Your task to perform on an android device: open chrome privacy settings Image 0: 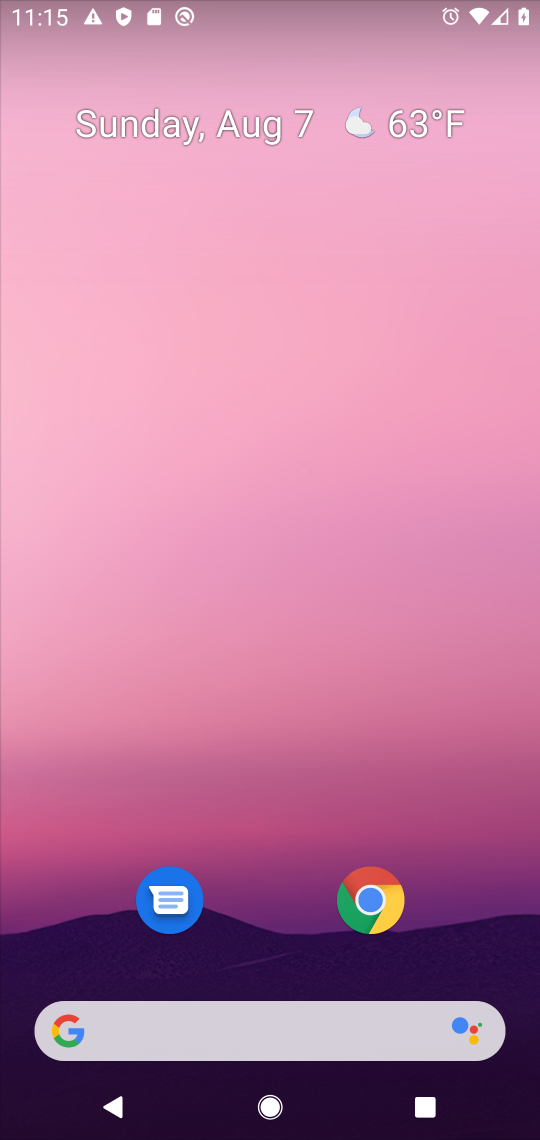
Step 0: press home button
Your task to perform on an android device: open chrome privacy settings Image 1: 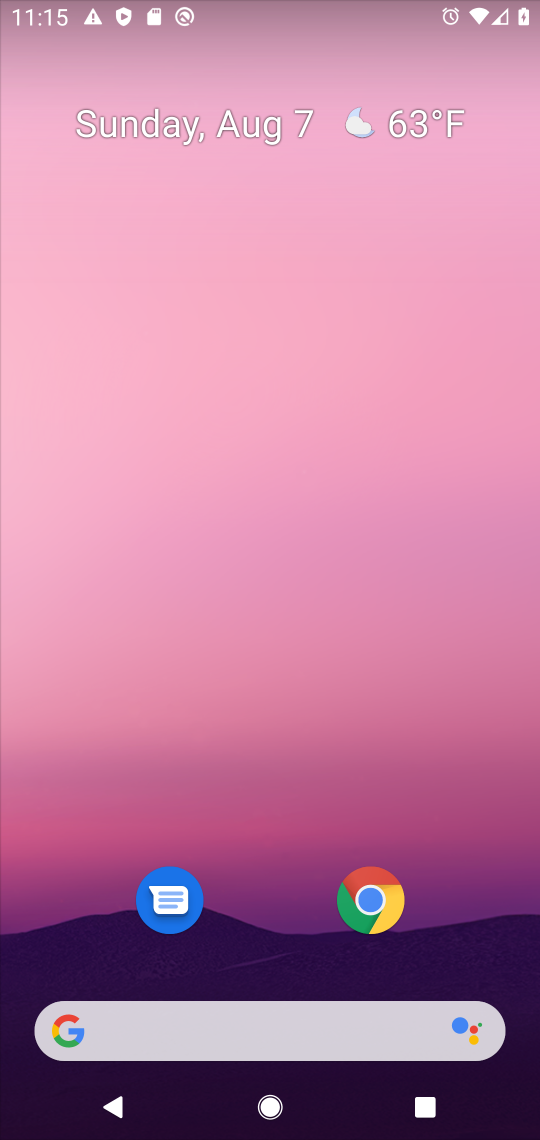
Step 1: drag from (279, 956) to (288, 83)
Your task to perform on an android device: open chrome privacy settings Image 2: 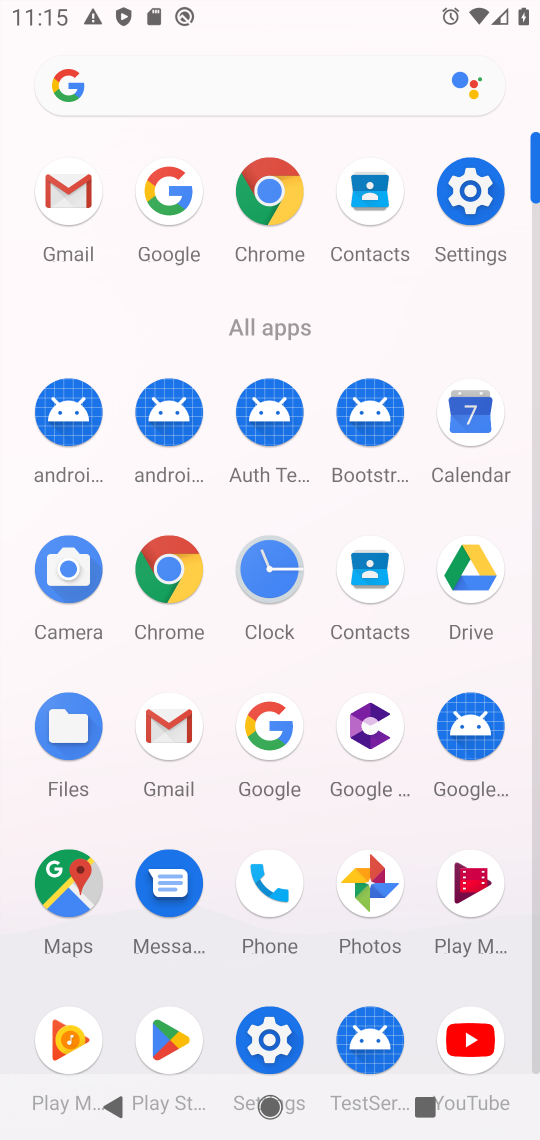
Step 2: click (270, 189)
Your task to perform on an android device: open chrome privacy settings Image 3: 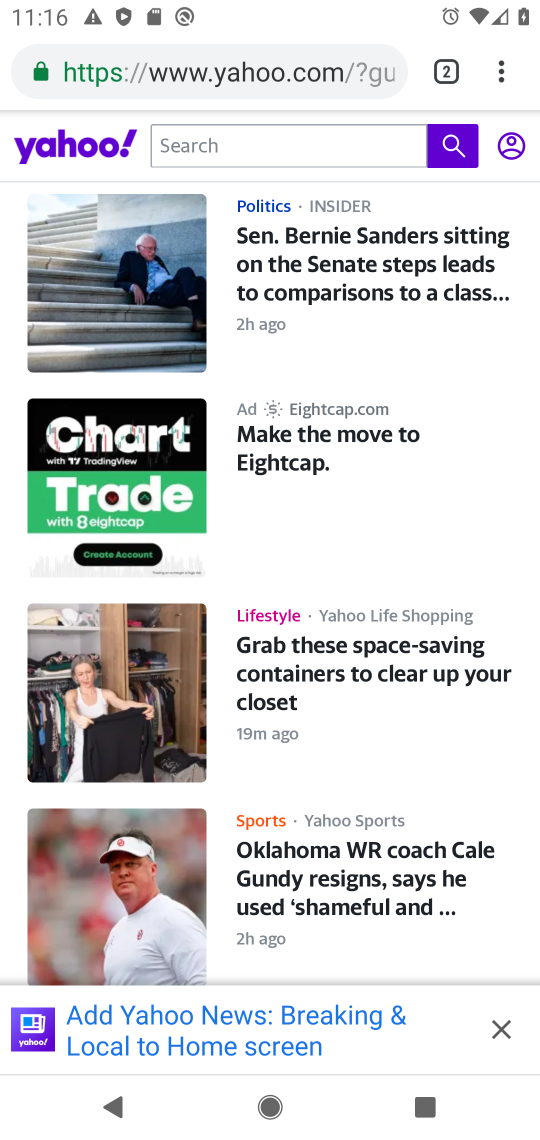
Step 3: click (506, 68)
Your task to perform on an android device: open chrome privacy settings Image 4: 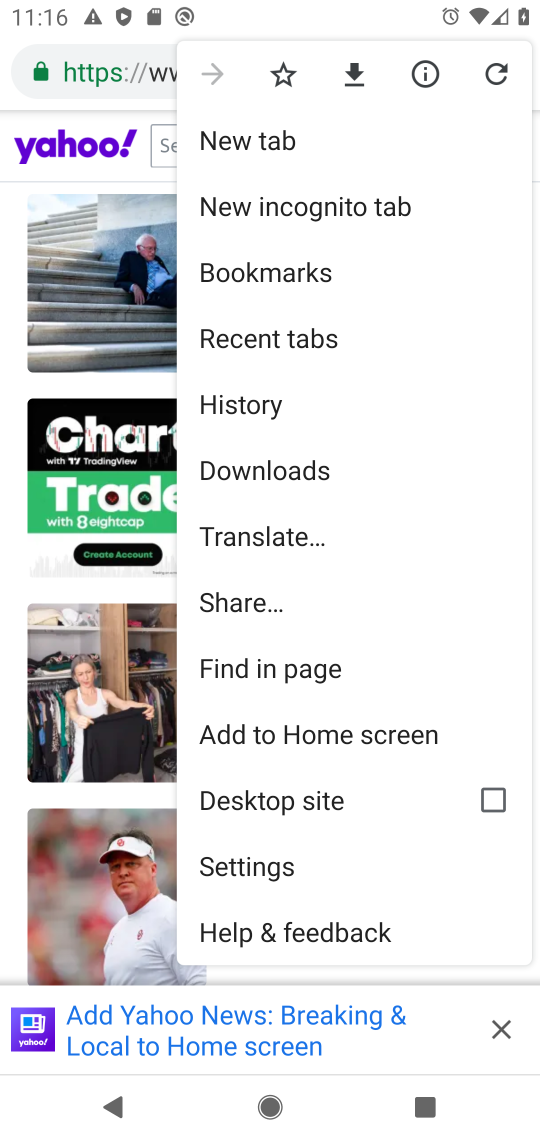
Step 4: click (321, 866)
Your task to perform on an android device: open chrome privacy settings Image 5: 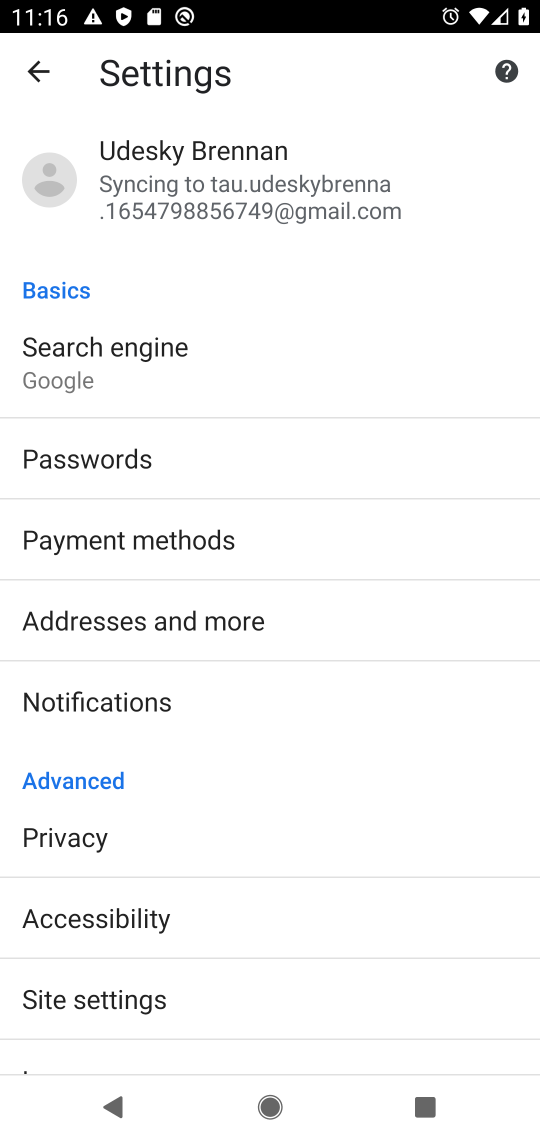
Step 5: click (127, 831)
Your task to perform on an android device: open chrome privacy settings Image 6: 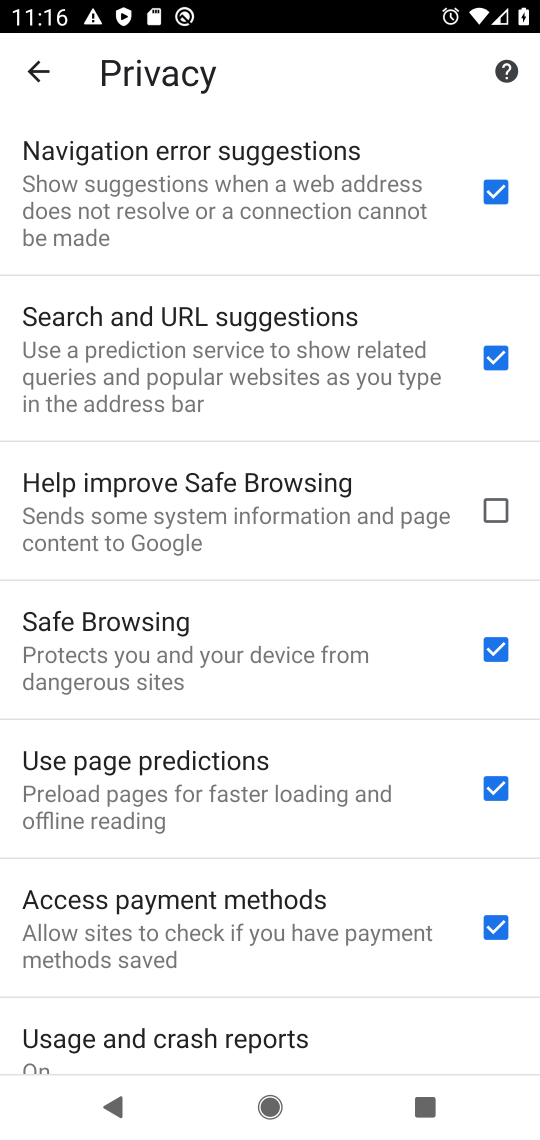
Step 6: task complete